Your task to perform on an android device: Open Google Chrome Image 0: 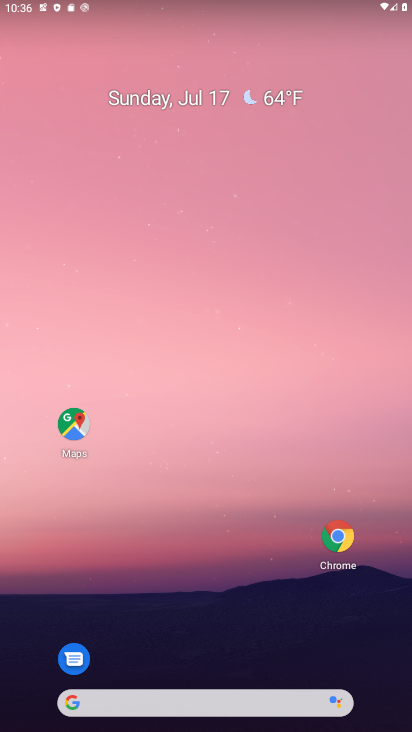
Step 0: click (346, 541)
Your task to perform on an android device: Open Google Chrome Image 1: 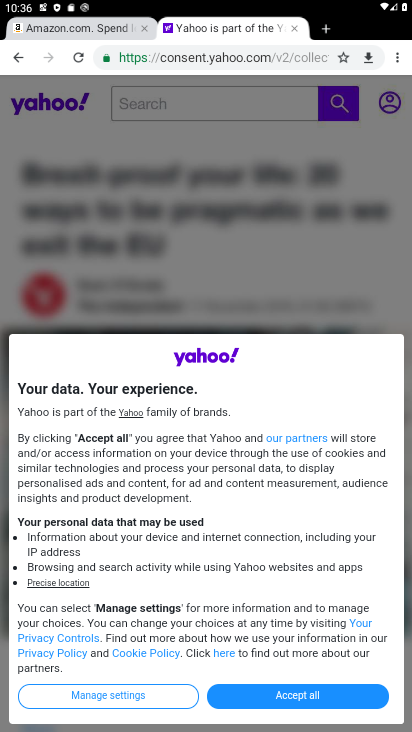
Step 1: task complete